Your task to perform on an android device: Check the news Image 0: 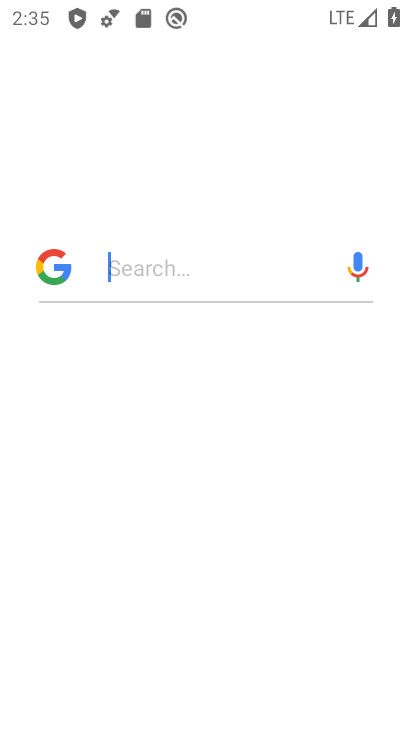
Step 0: drag from (378, 588) to (375, 386)
Your task to perform on an android device: Check the news Image 1: 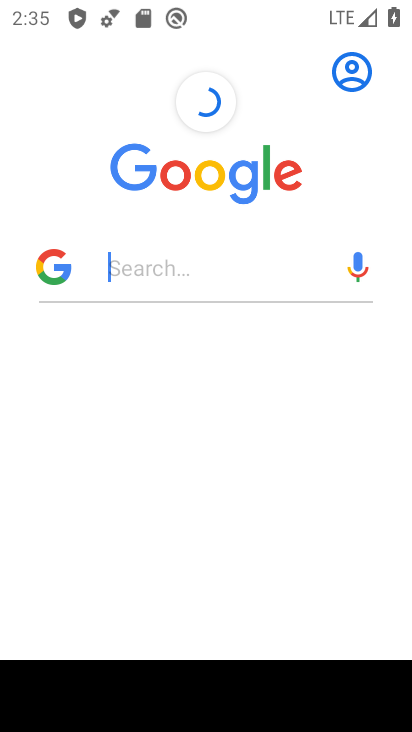
Step 1: task complete